Your task to perform on an android device: Search for hotels in Seattle Image 0: 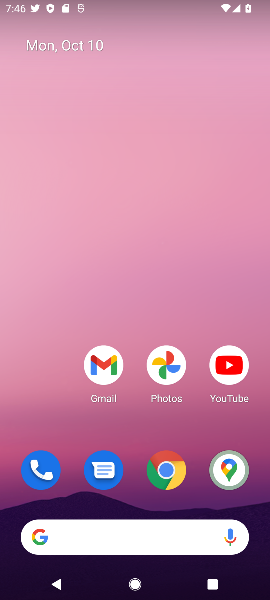
Step 0: click (176, 473)
Your task to perform on an android device: Search for hotels in Seattle Image 1: 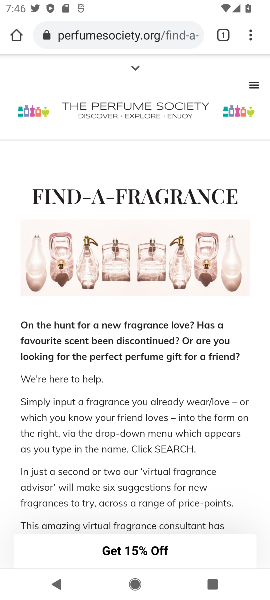
Step 1: click (116, 45)
Your task to perform on an android device: Search for hotels in Seattle Image 2: 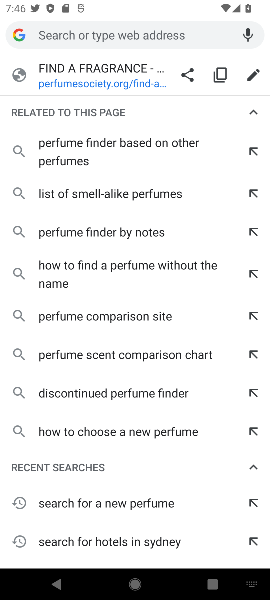
Step 2: type "Search for hotels in Seattle"
Your task to perform on an android device: Search for hotels in Seattle Image 3: 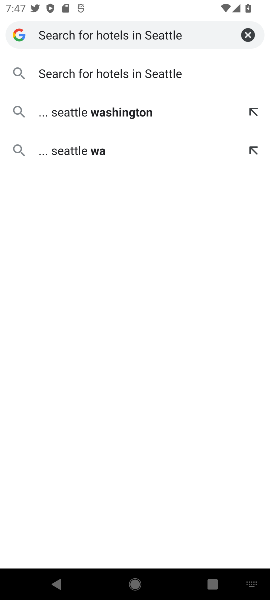
Step 3: click (154, 85)
Your task to perform on an android device: Search for hotels in Seattle Image 4: 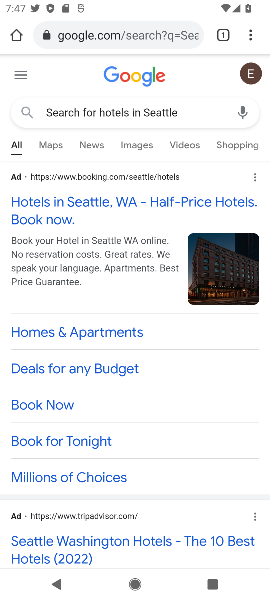
Step 4: task complete